Your task to perform on an android device: uninstall "Google Chrome" Image 0: 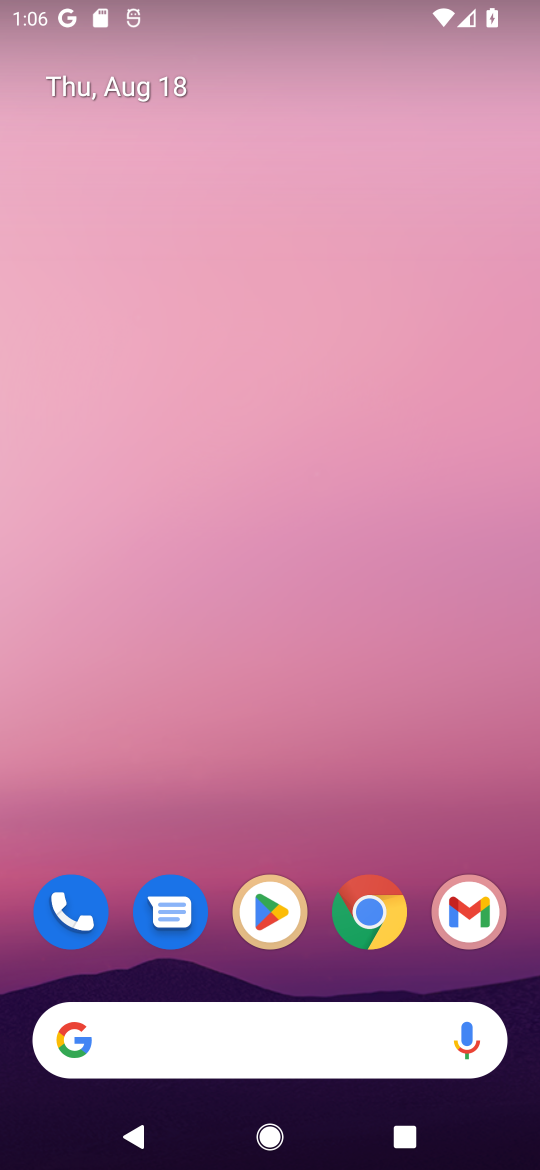
Step 0: click (387, 914)
Your task to perform on an android device: uninstall "Google Chrome" Image 1: 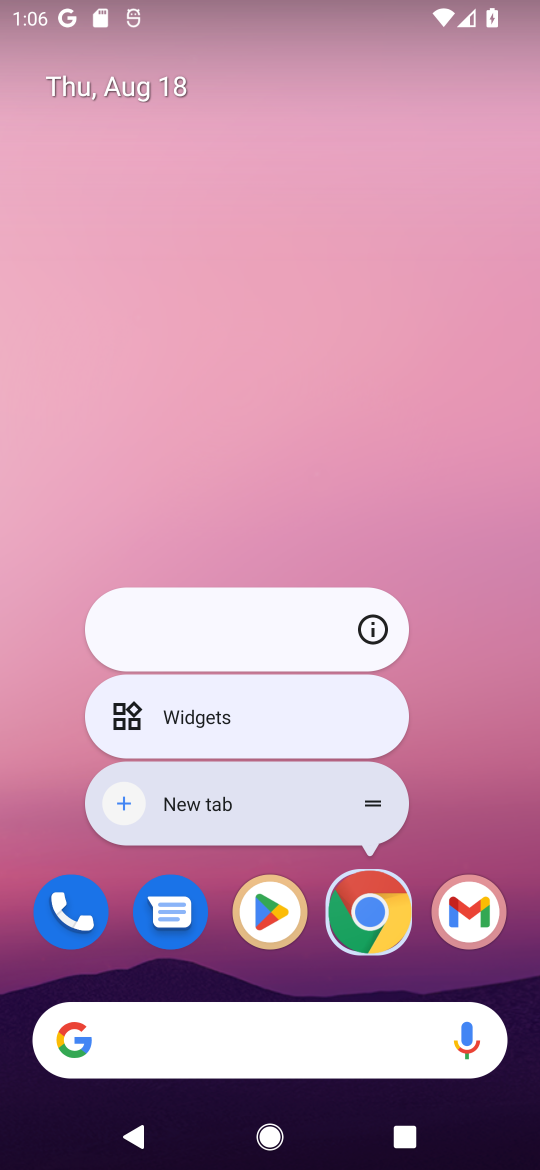
Step 1: click (368, 629)
Your task to perform on an android device: uninstall "Google Chrome" Image 2: 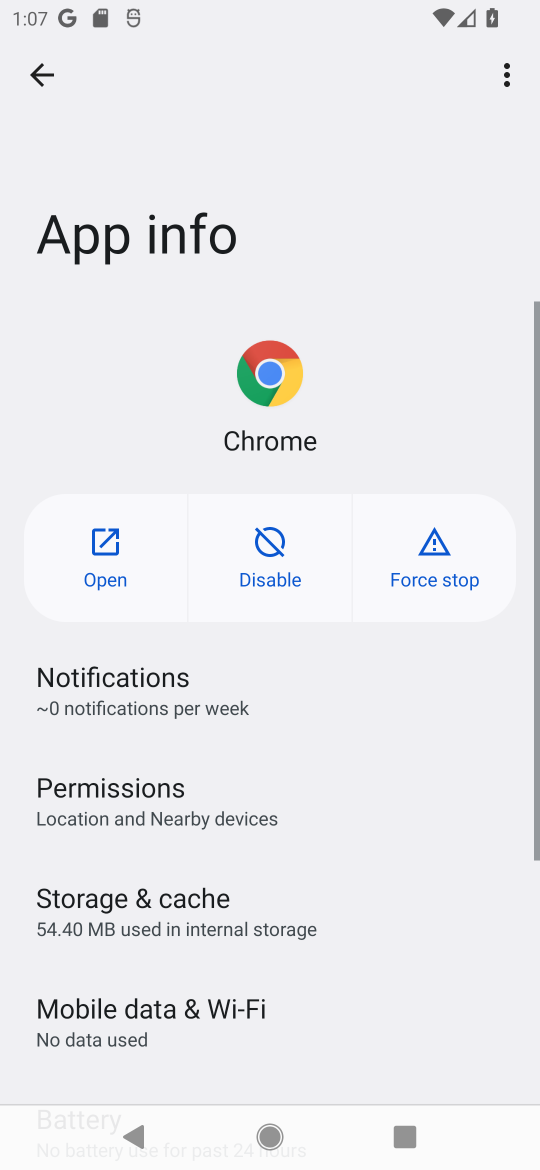
Step 2: task complete